Your task to perform on an android device: toggle sleep mode Image 0: 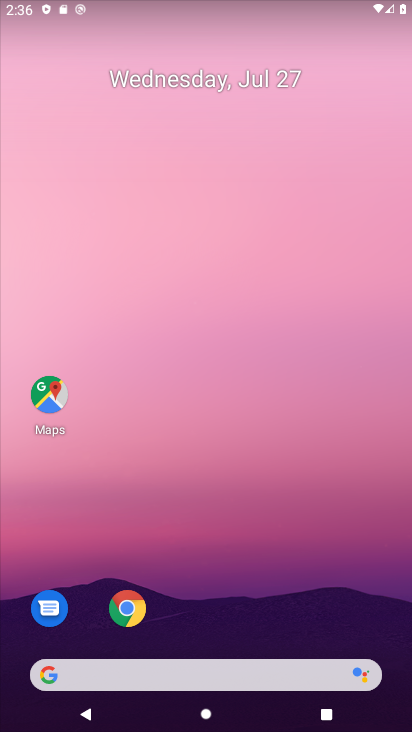
Step 0: drag from (242, 637) to (314, 73)
Your task to perform on an android device: toggle sleep mode Image 1: 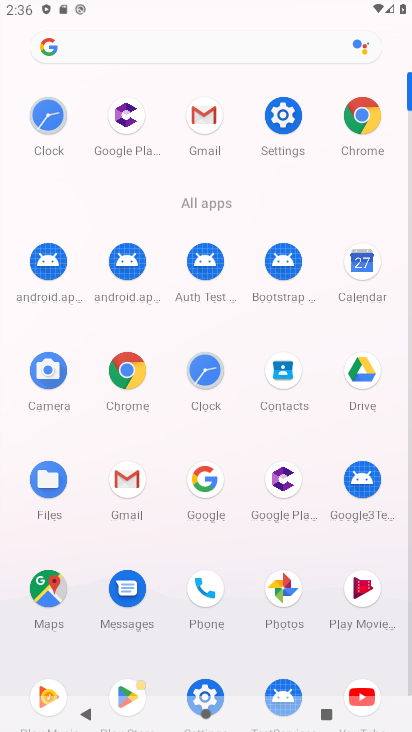
Step 1: click (279, 115)
Your task to perform on an android device: toggle sleep mode Image 2: 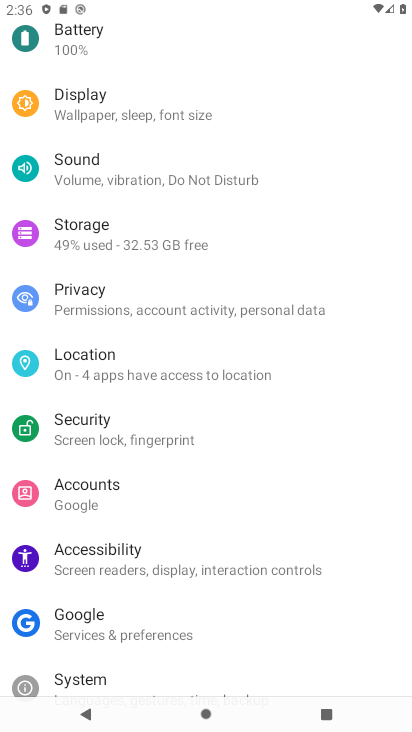
Step 2: click (212, 99)
Your task to perform on an android device: toggle sleep mode Image 3: 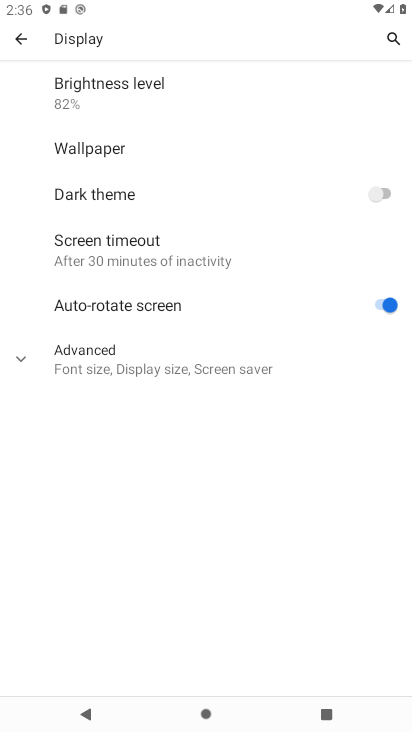
Step 3: click (83, 351)
Your task to perform on an android device: toggle sleep mode Image 4: 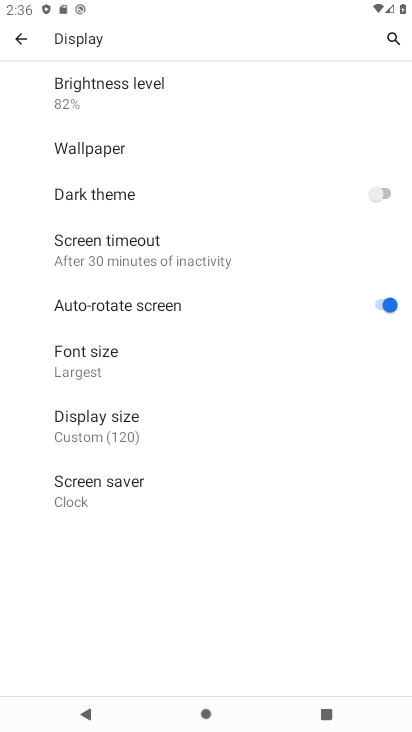
Step 4: task complete